Your task to perform on an android device: see sites visited before in the chrome app Image 0: 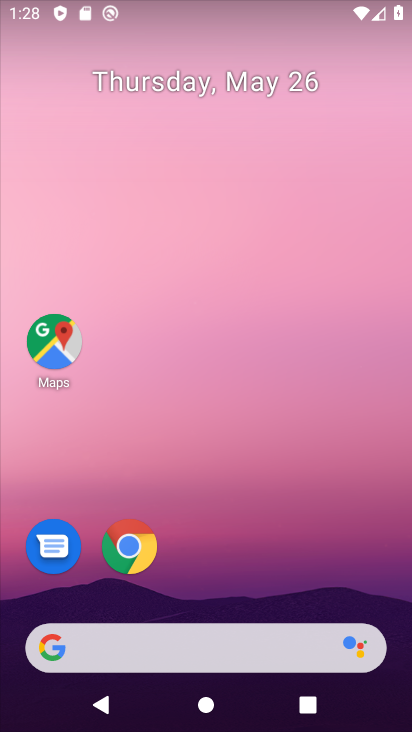
Step 0: click (129, 543)
Your task to perform on an android device: see sites visited before in the chrome app Image 1: 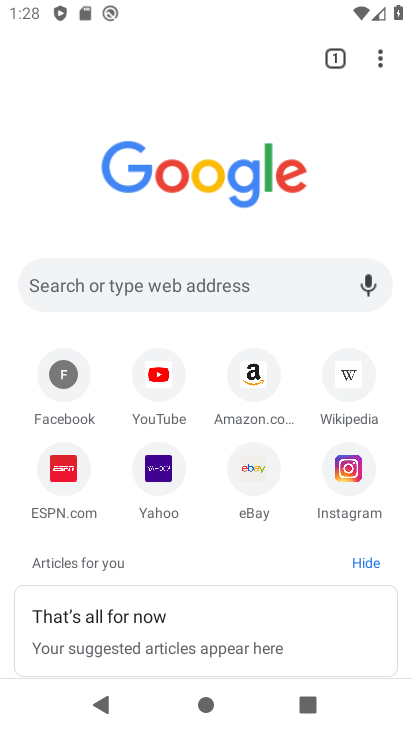
Step 1: click (372, 63)
Your task to perform on an android device: see sites visited before in the chrome app Image 2: 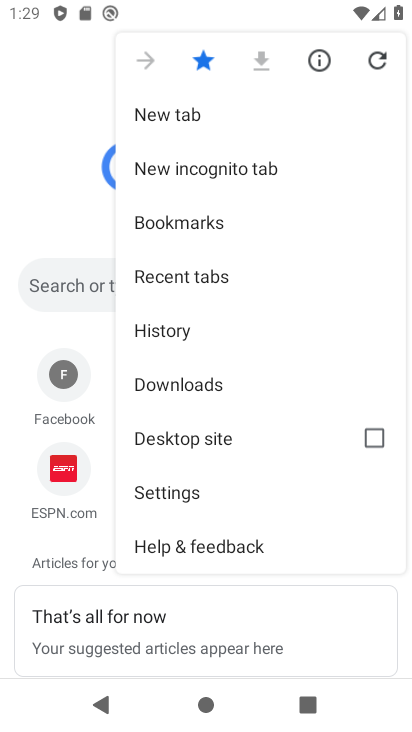
Step 2: click (167, 332)
Your task to perform on an android device: see sites visited before in the chrome app Image 3: 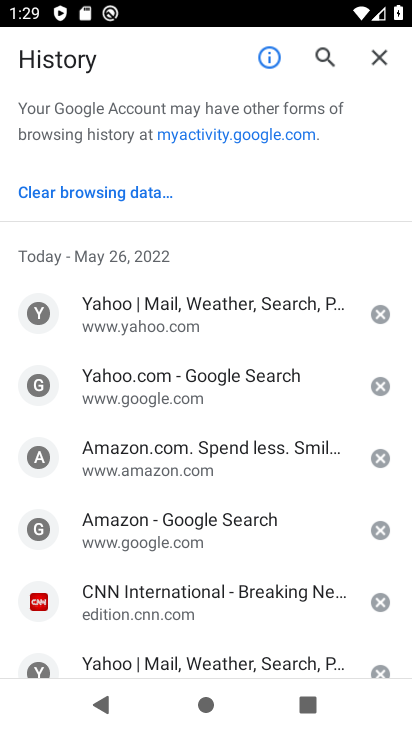
Step 3: task complete